Your task to perform on an android device: set an alarm Image 0: 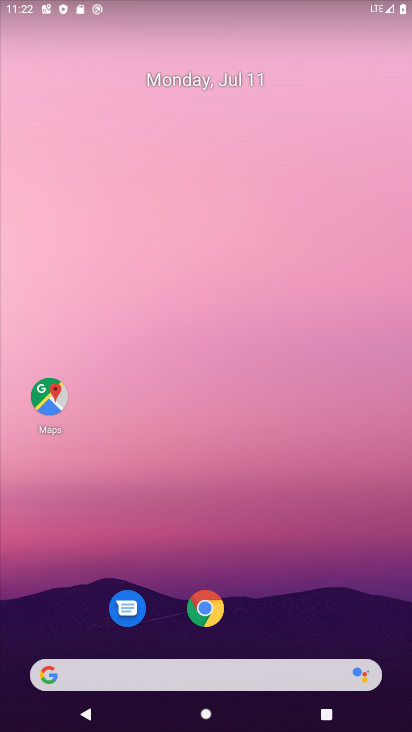
Step 0: drag from (13, 709) to (309, 30)
Your task to perform on an android device: set an alarm Image 1: 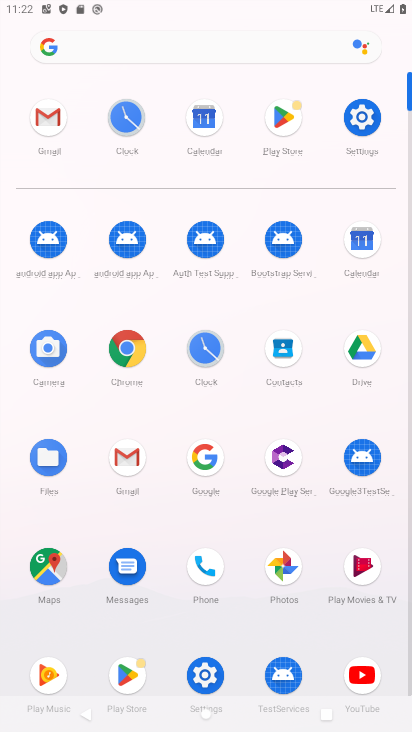
Step 1: click (225, 355)
Your task to perform on an android device: set an alarm Image 2: 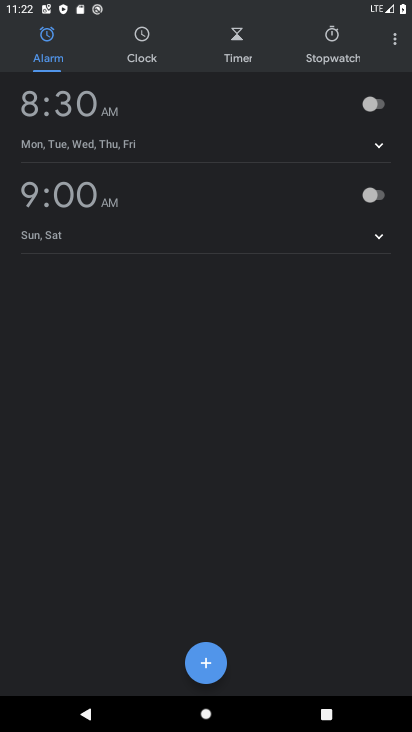
Step 2: click (365, 105)
Your task to perform on an android device: set an alarm Image 3: 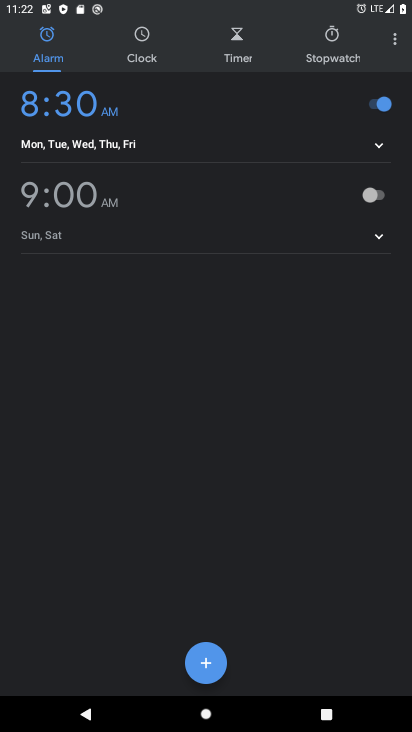
Step 3: task complete